Your task to perform on an android device: change the clock display to show seconds Image 0: 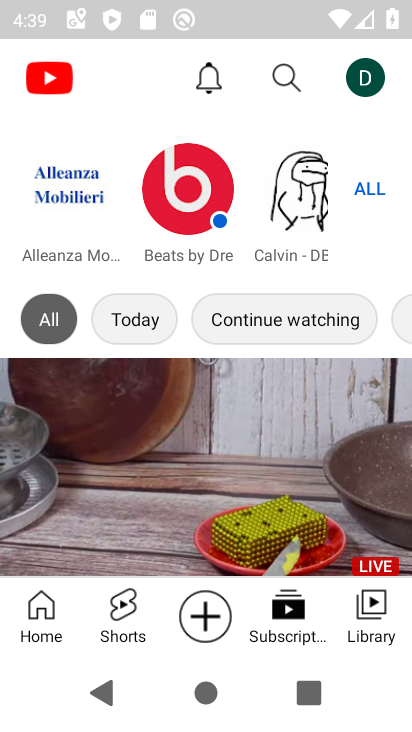
Step 0: press home button
Your task to perform on an android device: change the clock display to show seconds Image 1: 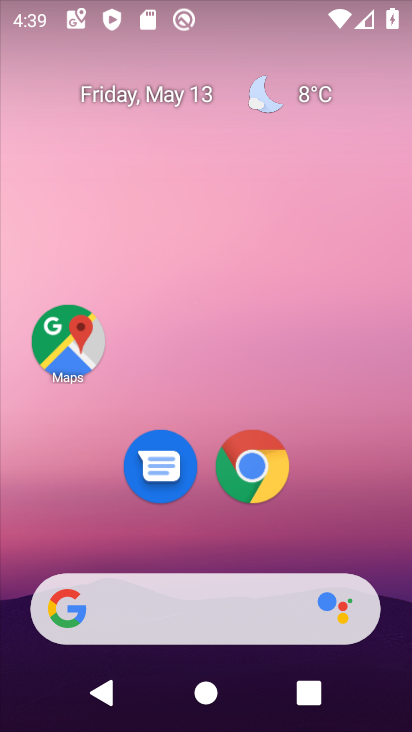
Step 1: drag from (386, 546) to (325, 56)
Your task to perform on an android device: change the clock display to show seconds Image 2: 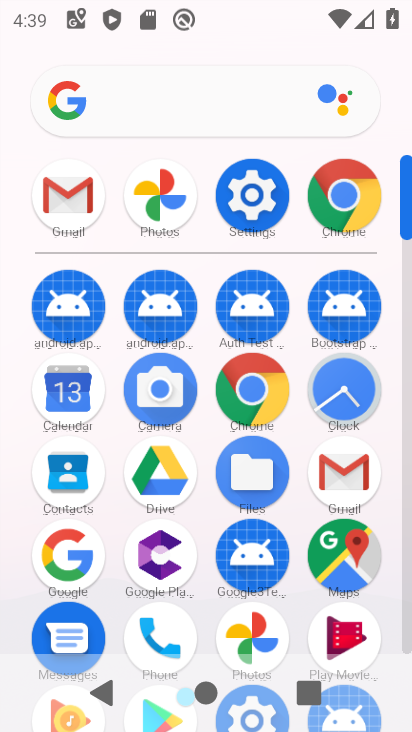
Step 2: click (339, 384)
Your task to perform on an android device: change the clock display to show seconds Image 3: 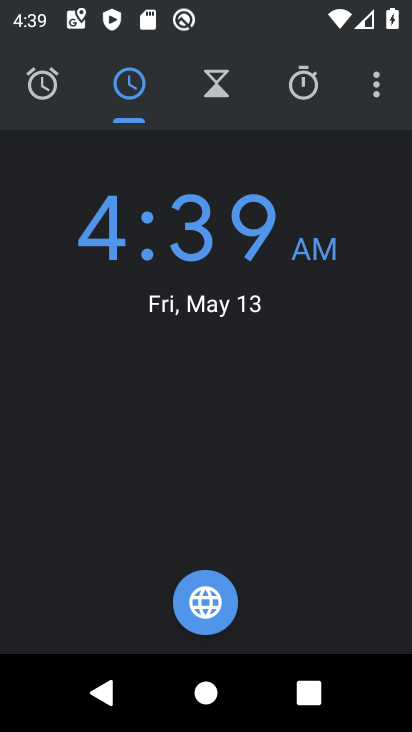
Step 3: click (373, 92)
Your task to perform on an android device: change the clock display to show seconds Image 4: 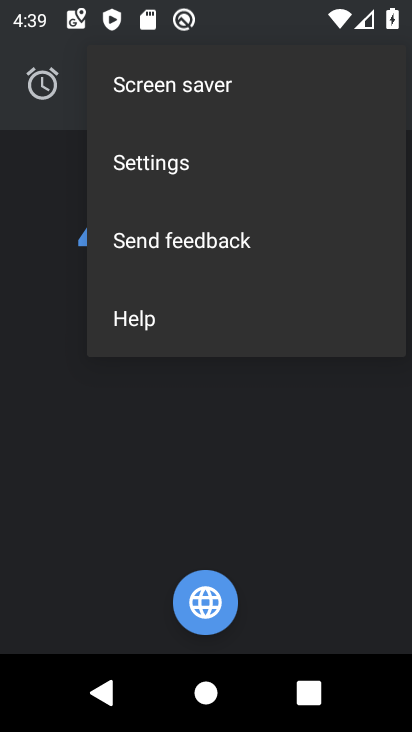
Step 4: click (137, 148)
Your task to perform on an android device: change the clock display to show seconds Image 5: 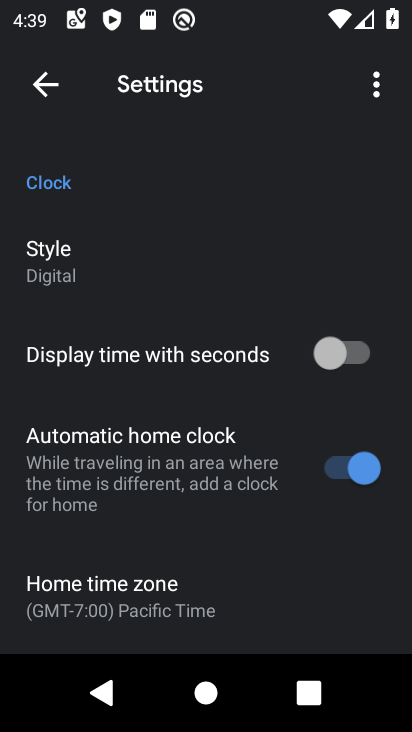
Step 5: click (350, 344)
Your task to perform on an android device: change the clock display to show seconds Image 6: 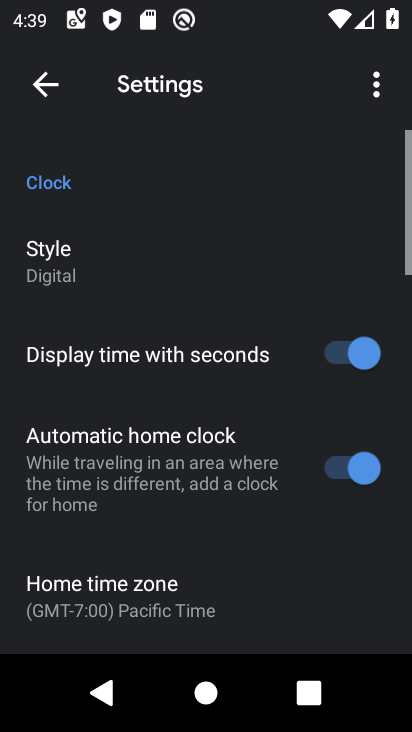
Step 6: task complete